Your task to perform on an android device: Go to Yahoo.com Image 0: 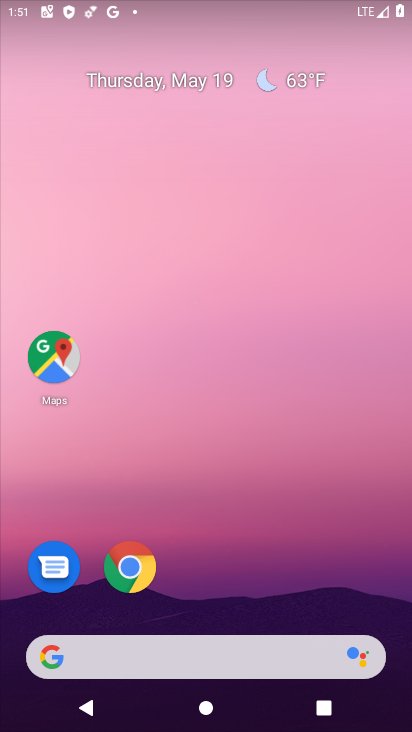
Step 0: drag from (227, 416) to (199, 141)
Your task to perform on an android device: Go to Yahoo.com Image 1: 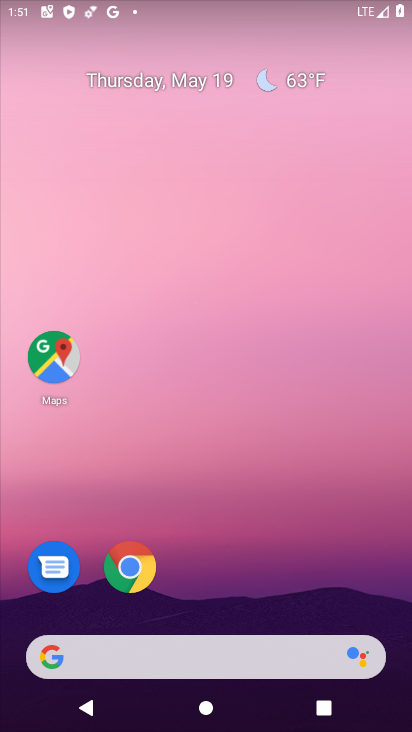
Step 1: drag from (275, 578) to (229, 117)
Your task to perform on an android device: Go to Yahoo.com Image 2: 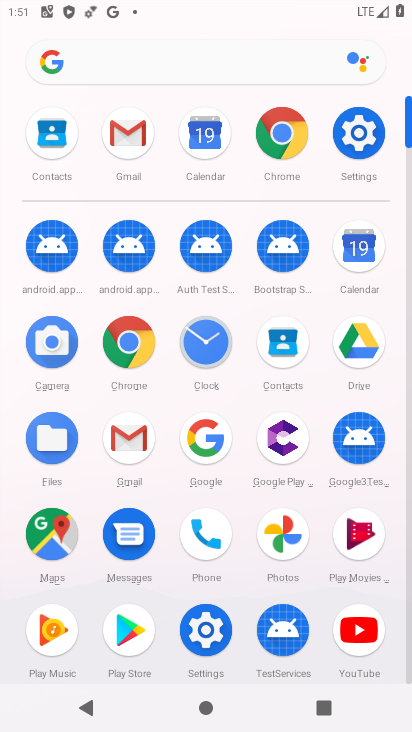
Step 2: click (286, 129)
Your task to perform on an android device: Go to Yahoo.com Image 3: 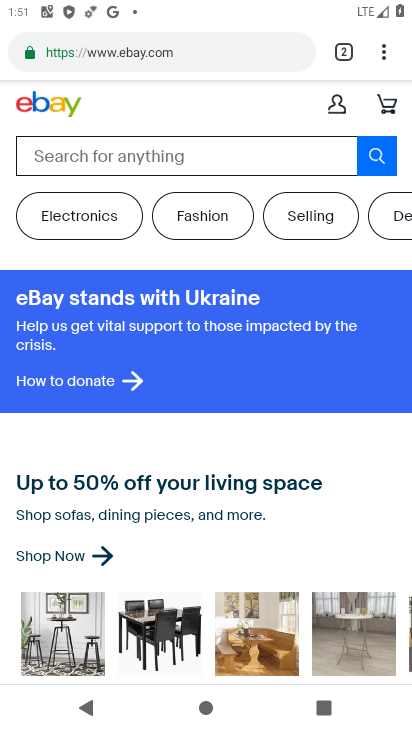
Step 3: click (177, 39)
Your task to perform on an android device: Go to Yahoo.com Image 4: 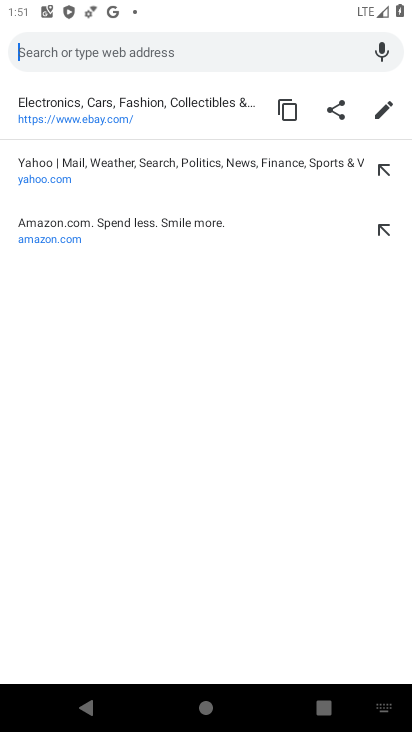
Step 4: click (102, 172)
Your task to perform on an android device: Go to Yahoo.com Image 5: 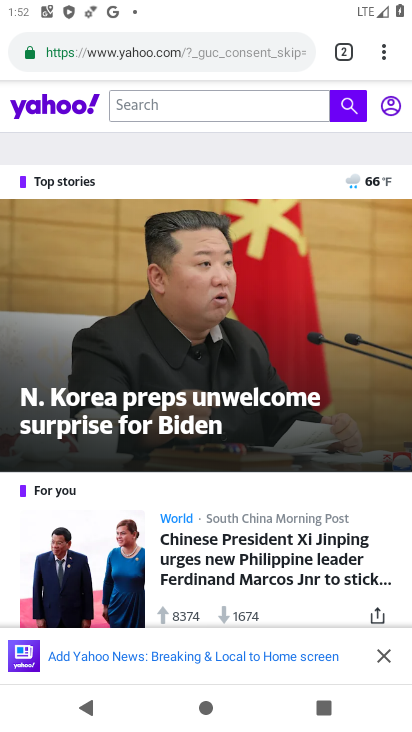
Step 5: task complete